Your task to perform on an android device: Go to Amazon Image 0: 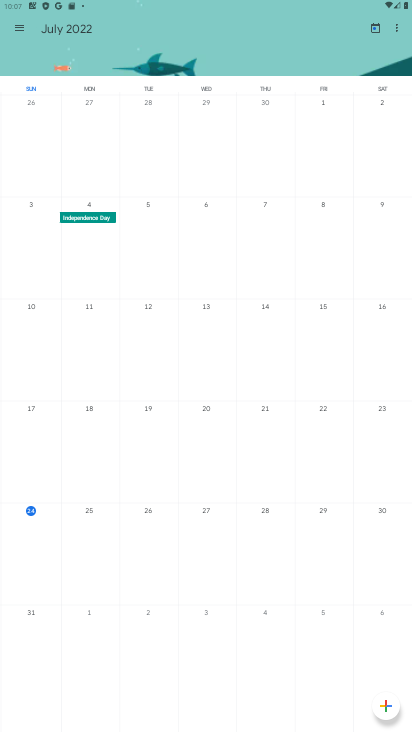
Step 0: press home button
Your task to perform on an android device: Go to Amazon Image 1: 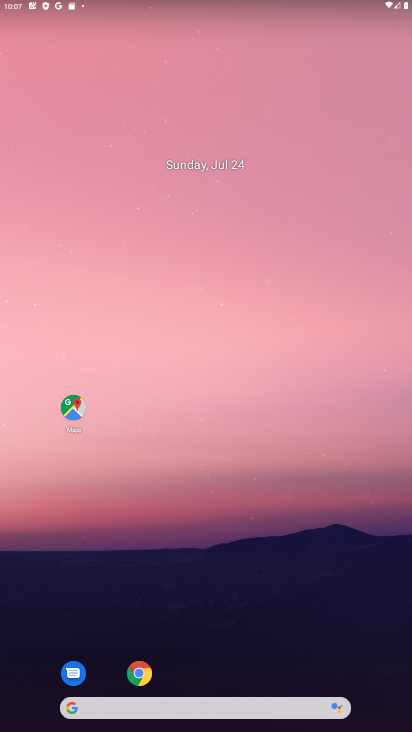
Step 1: click (128, 710)
Your task to perform on an android device: Go to Amazon Image 2: 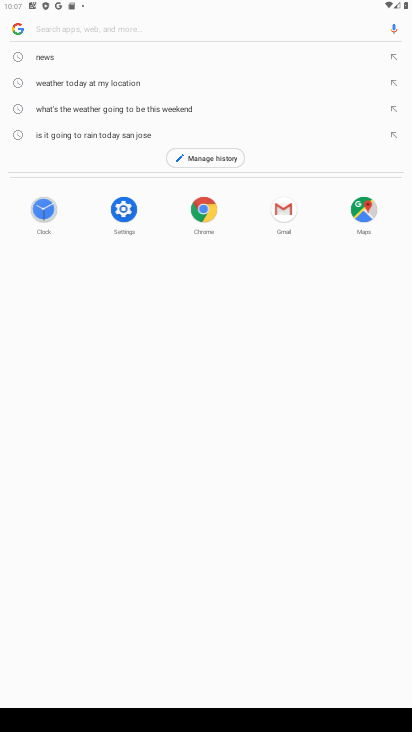
Step 2: type "Amazon"
Your task to perform on an android device: Go to Amazon Image 3: 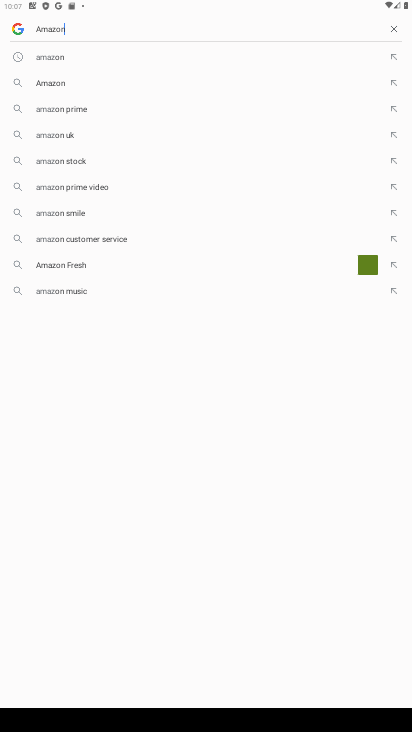
Step 3: type ""
Your task to perform on an android device: Go to Amazon Image 4: 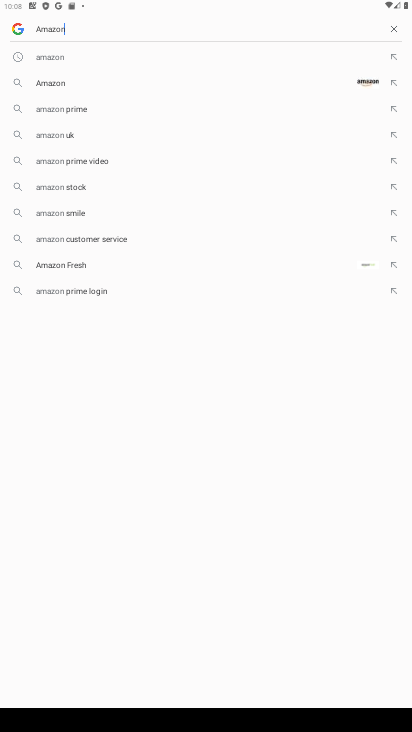
Step 4: click (49, 84)
Your task to perform on an android device: Go to Amazon Image 5: 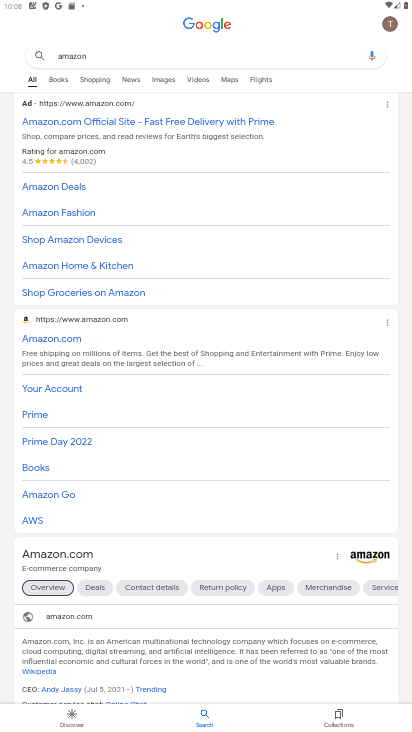
Step 5: task complete